Your task to perform on an android device: choose inbox layout in the gmail app Image 0: 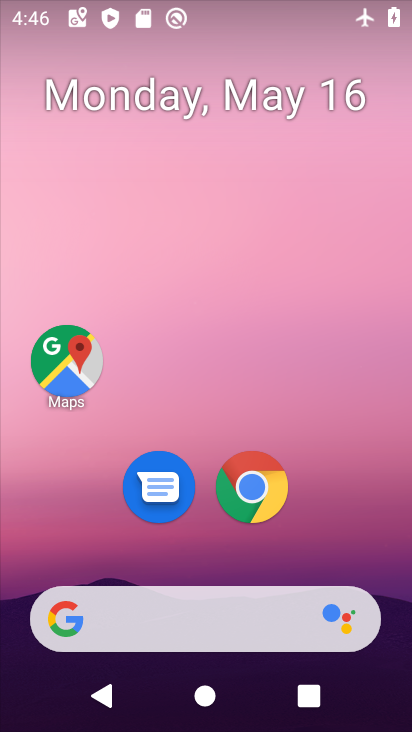
Step 0: drag from (397, 632) to (382, 66)
Your task to perform on an android device: choose inbox layout in the gmail app Image 1: 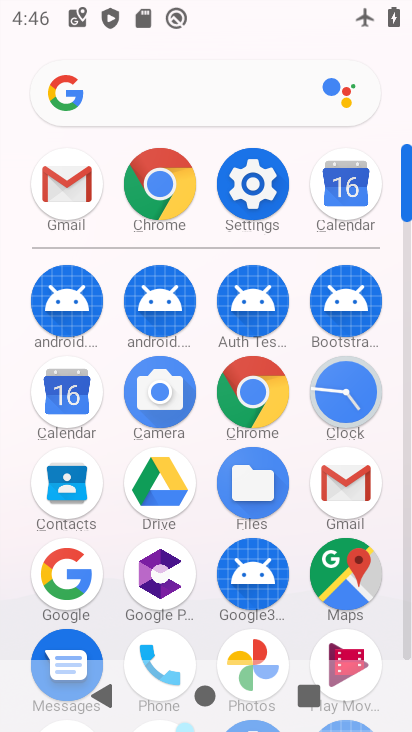
Step 1: click (347, 482)
Your task to perform on an android device: choose inbox layout in the gmail app Image 2: 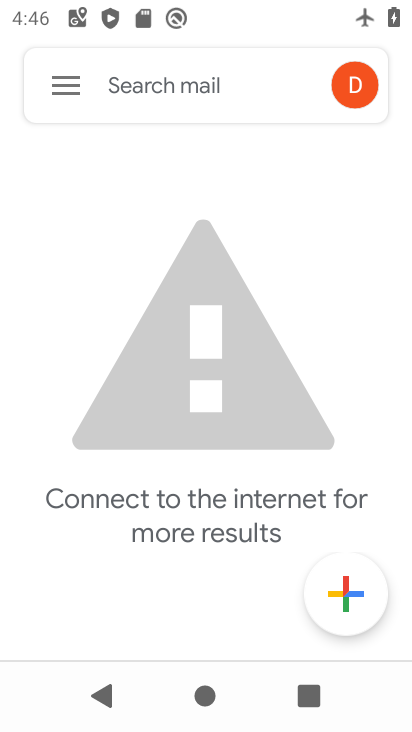
Step 2: click (68, 90)
Your task to perform on an android device: choose inbox layout in the gmail app Image 3: 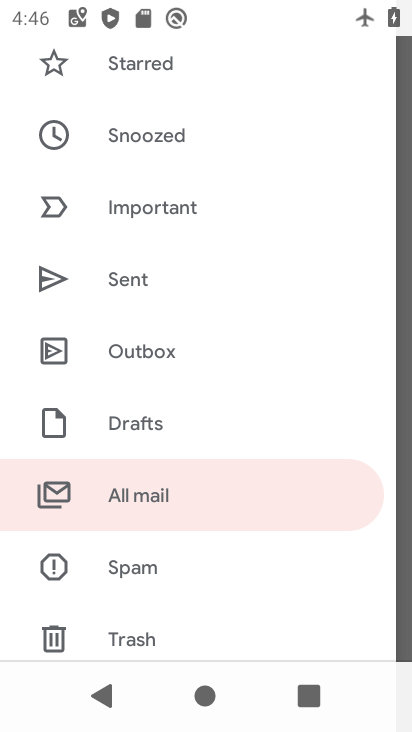
Step 3: drag from (277, 630) to (265, 222)
Your task to perform on an android device: choose inbox layout in the gmail app Image 4: 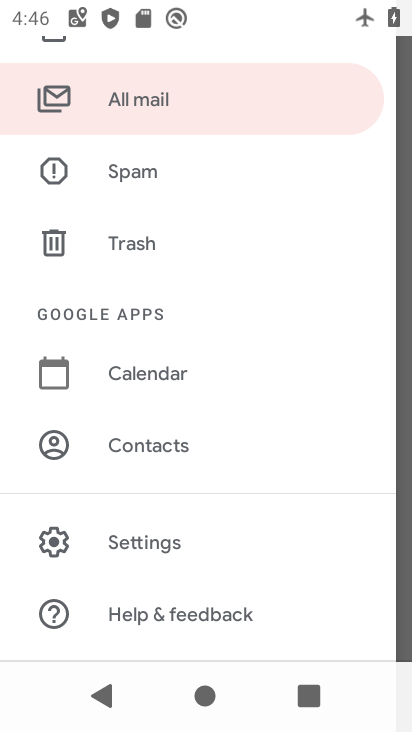
Step 4: click (134, 539)
Your task to perform on an android device: choose inbox layout in the gmail app Image 5: 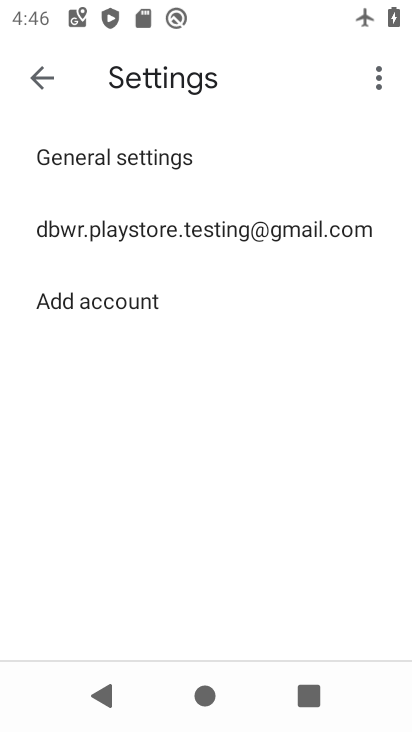
Step 5: click (184, 225)
Your task to perform on an android device: choose inbox layout in the gmail app Image 6: 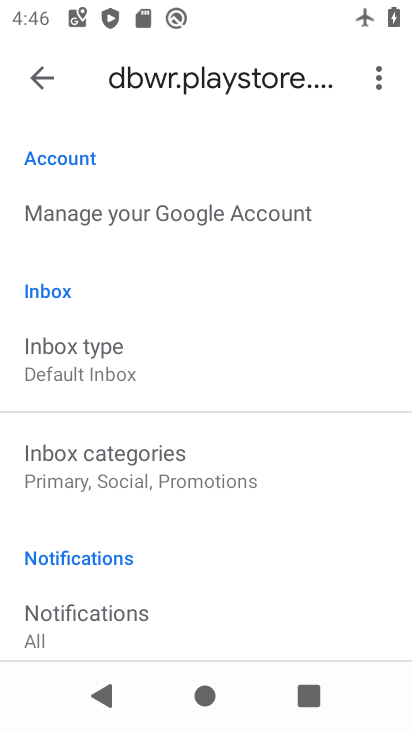
Step 6: click (80, 354)
Your task to perform on an android device: choose inbox layout in the gmail app Image 7: 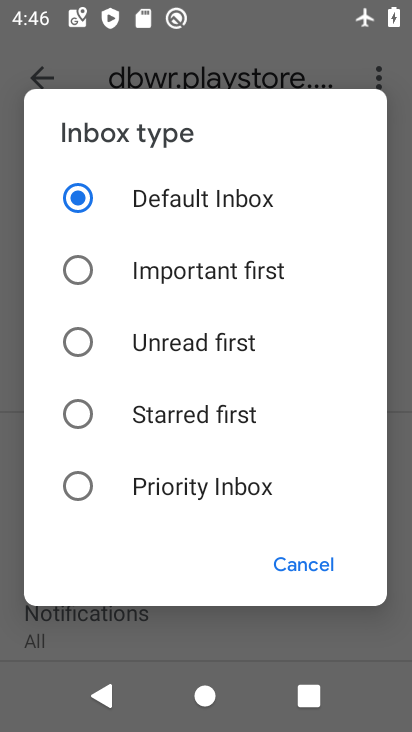
Step 7: click (77, 332)
Your task to perform on an android device: choose inbox layout in the gmail app Image 8: 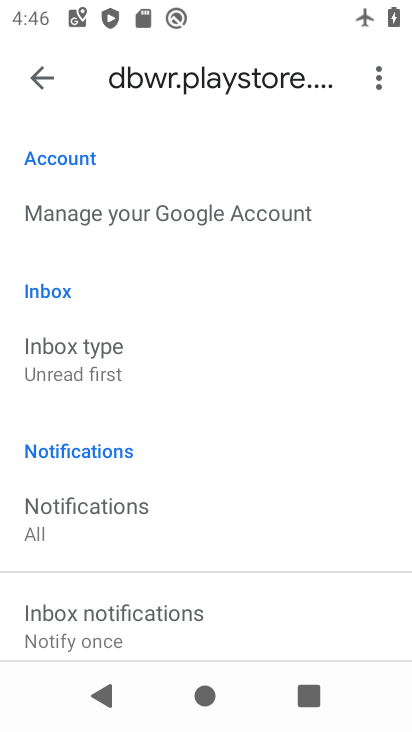
Step 8: task complete